Your task to perform on an android device: When is my next appointment? Image 0: 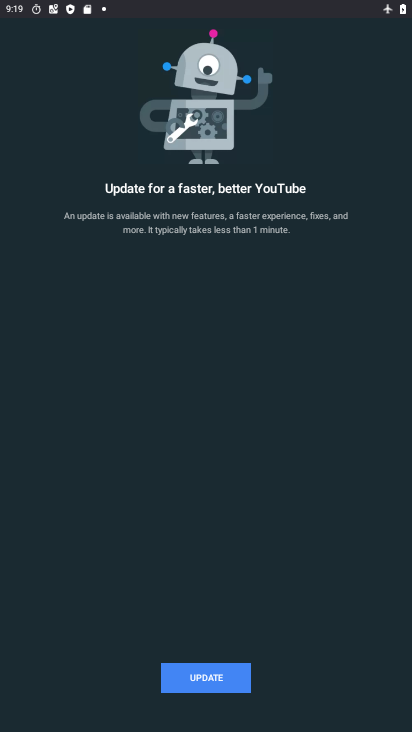
Step 0: press home button
Your task to perform on an android device: When is my next appointment? Image 1: 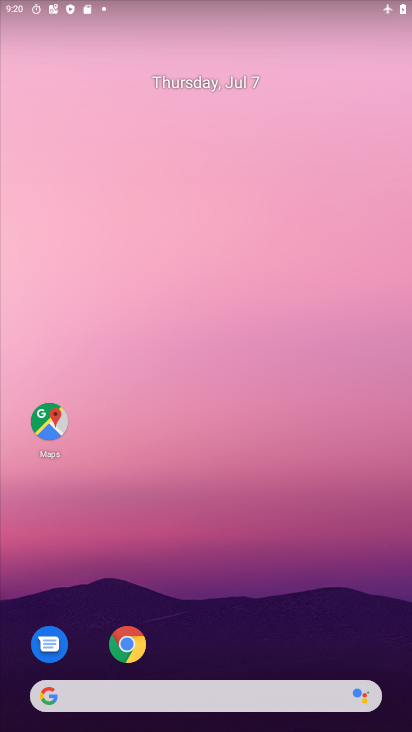
Step 1: drag from (327, 617) to (293, 144)
Your task to perform on an android device: When is my next appointment? Image 2: 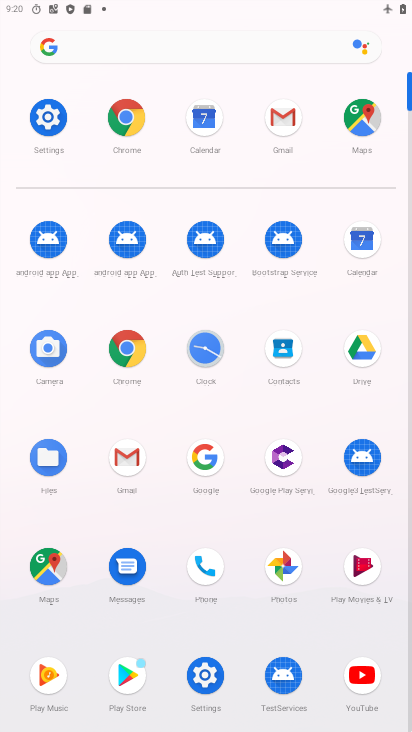
Step 2: click (368, 240)
Your task to perform on an android device: When is my next appointment? Image 3: 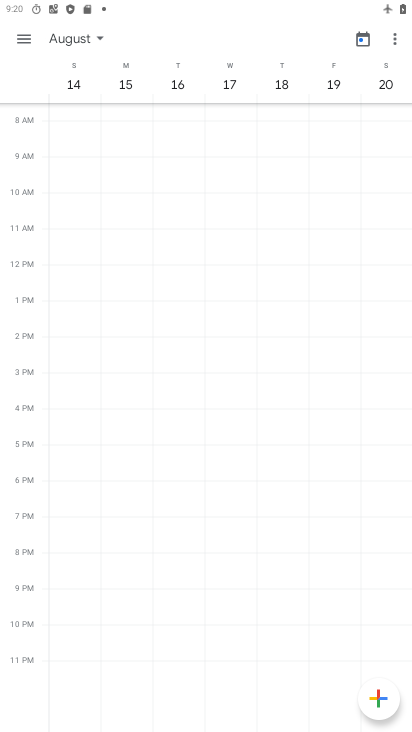
Step 3: click (92, 36)
Your task to perform on an android device: When is my next appointment? Image 4: 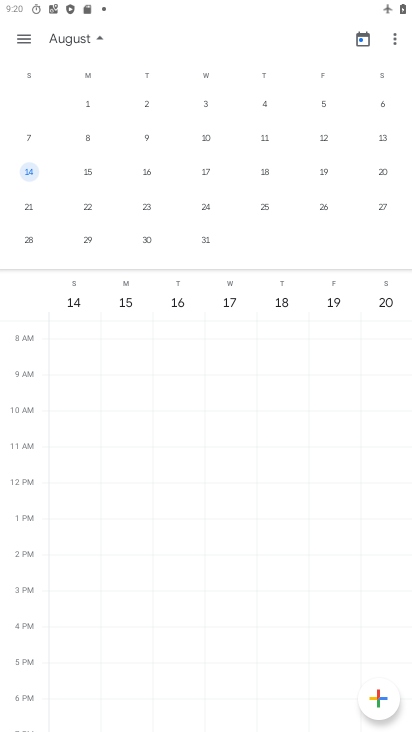
Step 4: drag from (38, 192) to (406, 191)
Your task to perform on an android device: When is my next appointment? Image 5: 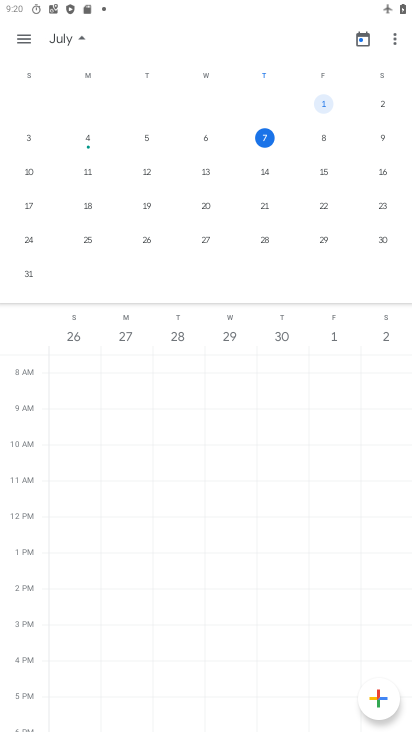
Step 5: click (261, 143)
Your task to perform on an android device: When is my next appointment? Image 6: 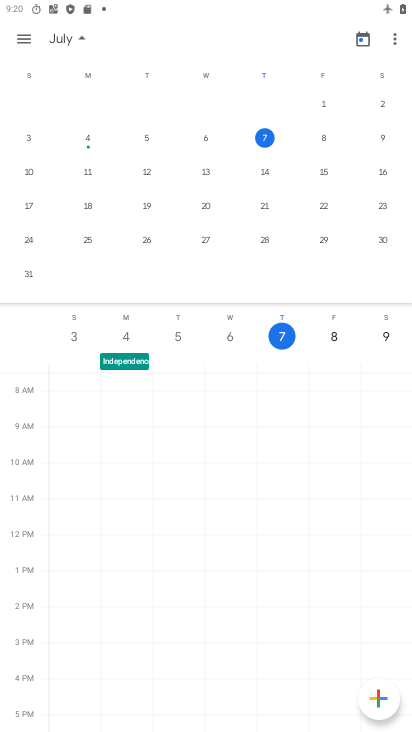
Step 6: task complete